Your task to perform on an android device: check storage Image 0: 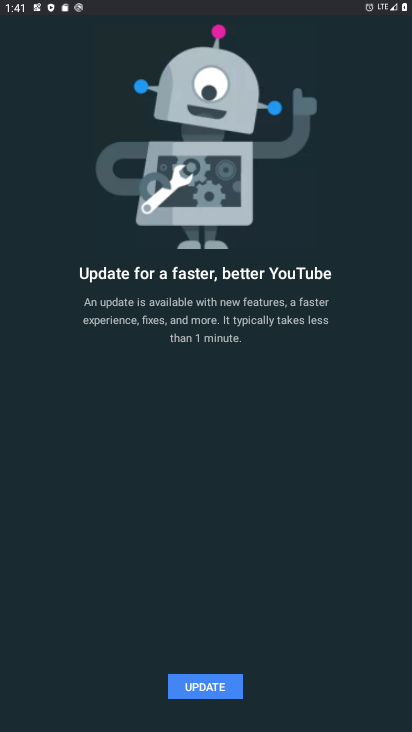
Step 0: press home button
Your task to perform on an android device: check storage Image 1: 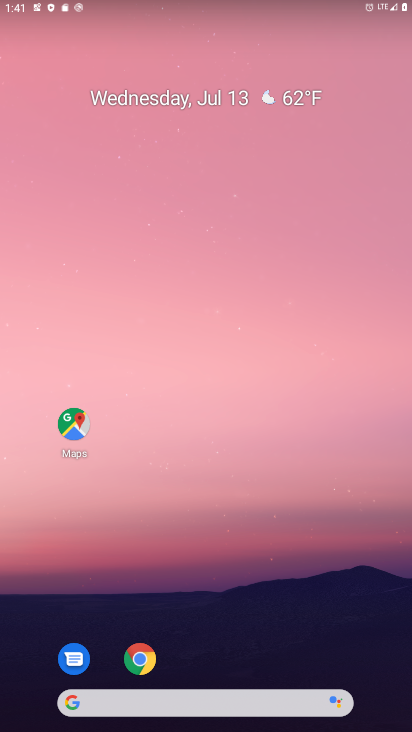
Step 1: drag from (215, 726) to (202, 207)
Your task to perform on an android device: check storage Image 2: 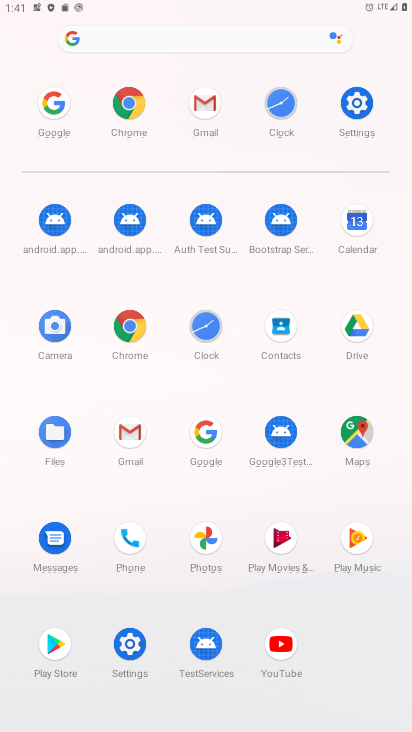
Step 2: click (354, 101)
Your task to perform on an android device: check storage Image 3: 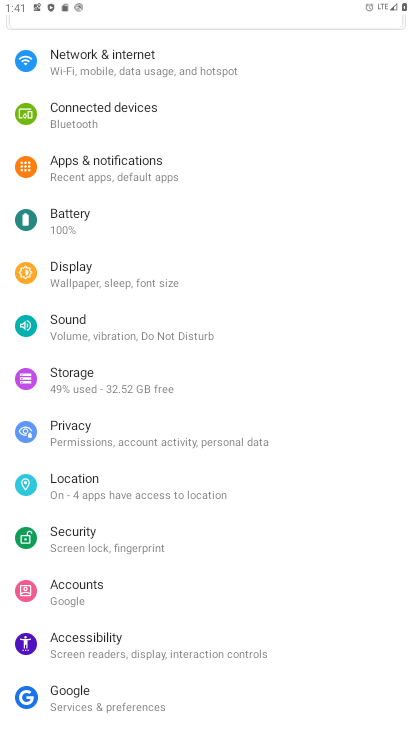
Step 3: click (69, 376)
Your task to perform on an android device: check storage Image 4: 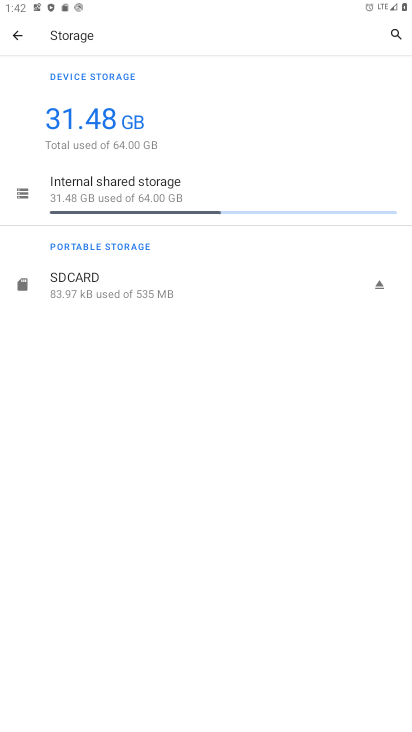
Step 4: task complete